Your task to perform on an android device: open chrome and create a bookmark for the current page Image 0: 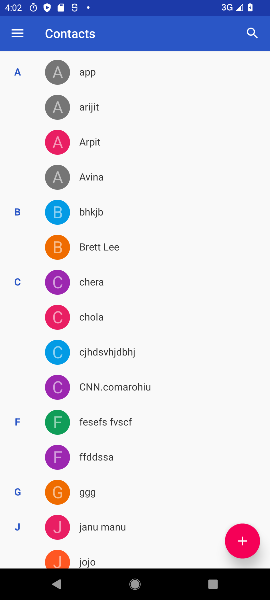
Step 0: press home button
Your task to perform on an android device: open chrome and create a bookmark for the current page Image 1: 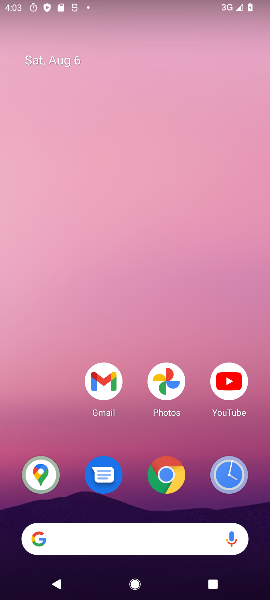
Step 1: click (167, 488)
Your task to perform on an android device: open chrome and create a bookmark for the current page Image 2: 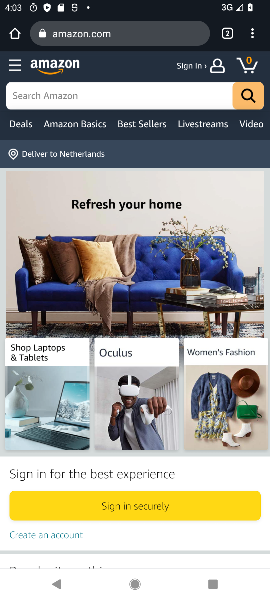
Step 2: click (246, 30)
Your task to perform on an android device: open chrome and create a bookmark for the current page Image 3: 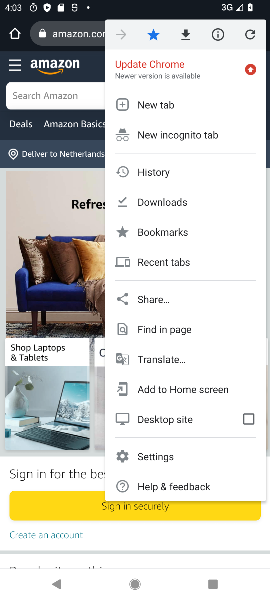
Step 3: click (175, 234)
Your task to perform on an android device: open chrome and create a bookmark for the current page Image 4: 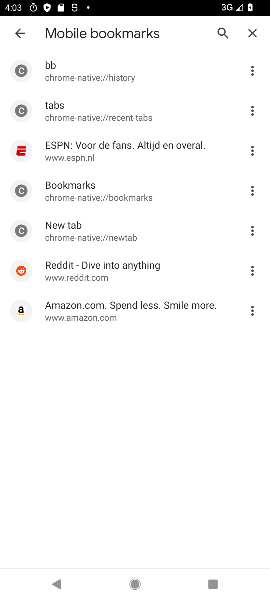
Step 4: task complete